Your task to perform on an android device: What is the recent news? Image 0: 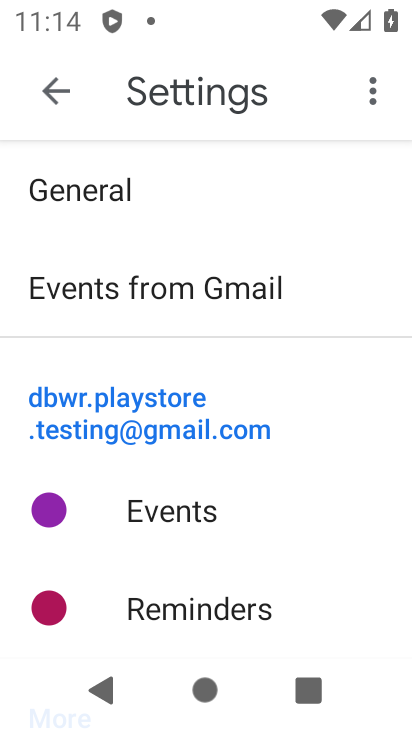
Step 0: press home button
Your task to perform on an android device: What is the recent news? Image 1: 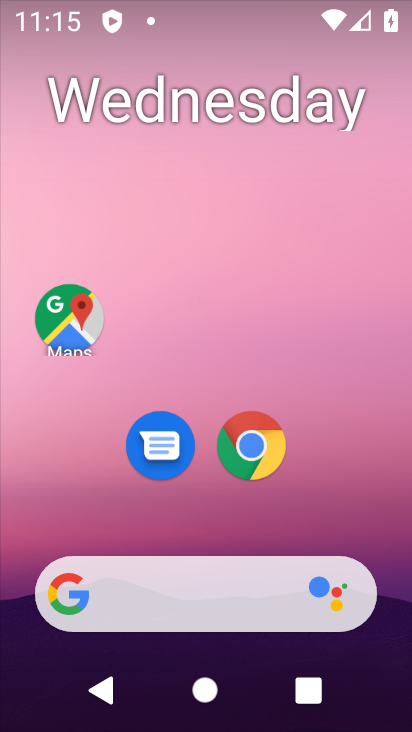
Step 1: click (217, 599)
Your task to perform on an android device: What is the recent news? Image 2: 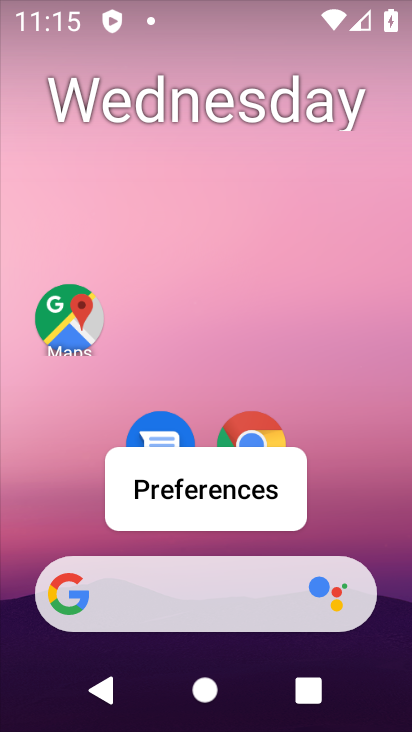
Step 2: click (216, 598)
Your task to perform on an android device: What is the recent news? Image 3: 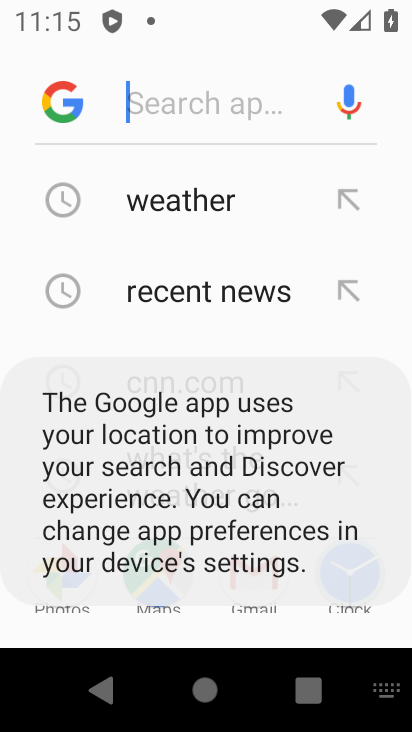
Step 3: click (159, 298)
Your task to perform on an android device: What is the recent news? Image 4: 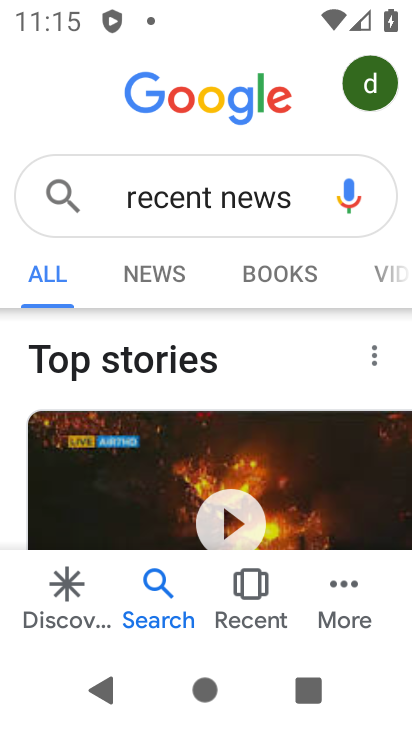
Step 4: task complete